Your task to perform on an android device: choose inbox layout in the gmail app Image 0: 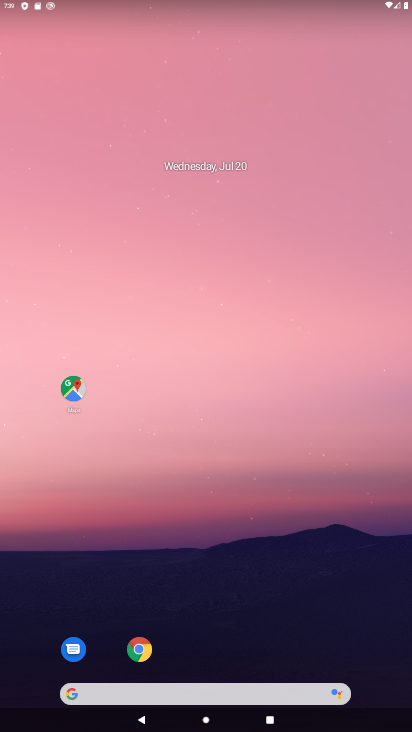
Step 0: drag from (237, 631) to (244, 76)
Your task to perform on an android device: choose inbox layout in the gmail app Image 1: 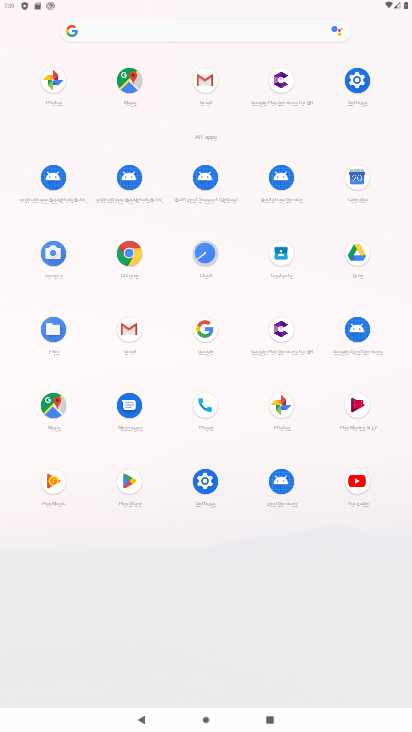
Step 1: click (218, 82)
Your task to perform on an android device: choose inbox layout in the gmail app Image 2: 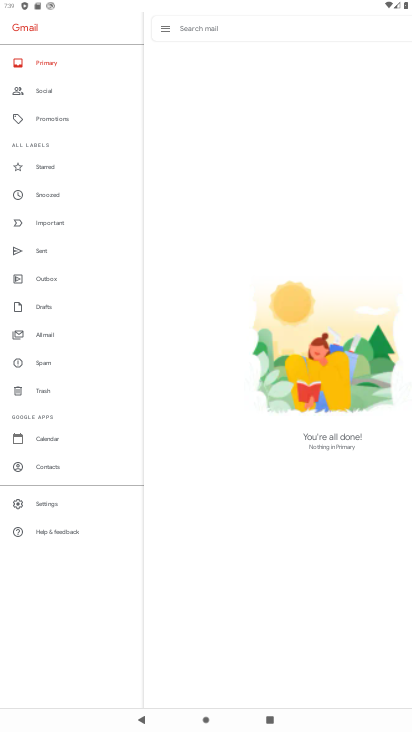
Step 2: task complete